Your task to perform on an android device: turn pop-ups on in chrome Image 0: 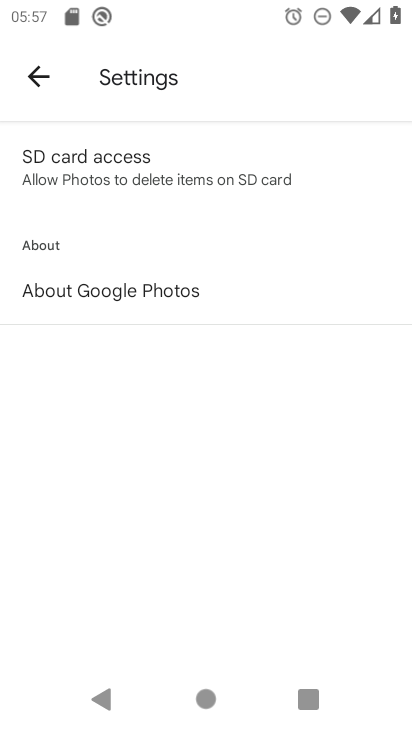
Step 0: press home button
Your task to perform on an android device: turn pop-ups on in chrome Image 1: 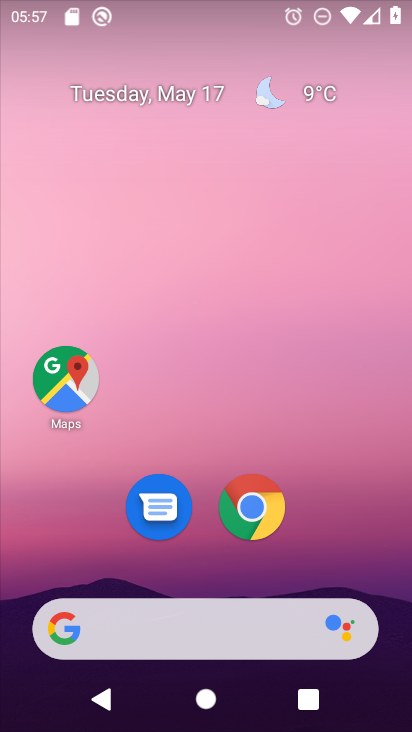
Step 1: drag from (335, 514) to (238, 40)
Your task to perform on an android device: turn pop-ups on in chrome Image 2: 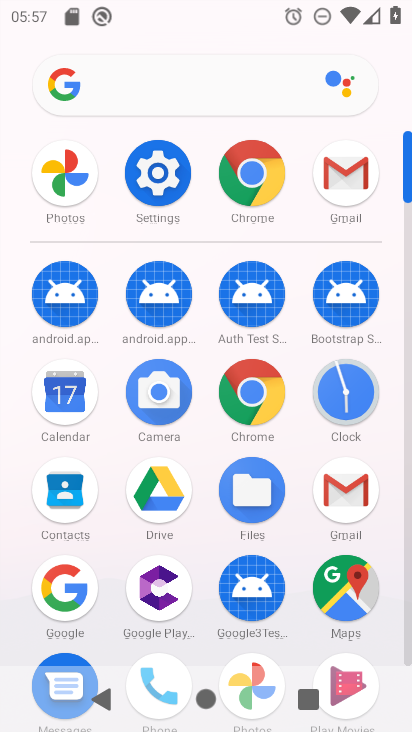
Step 2: click (243, 183)
Your task to perform on an android device: turn pop-ups on in chrome Image 3: 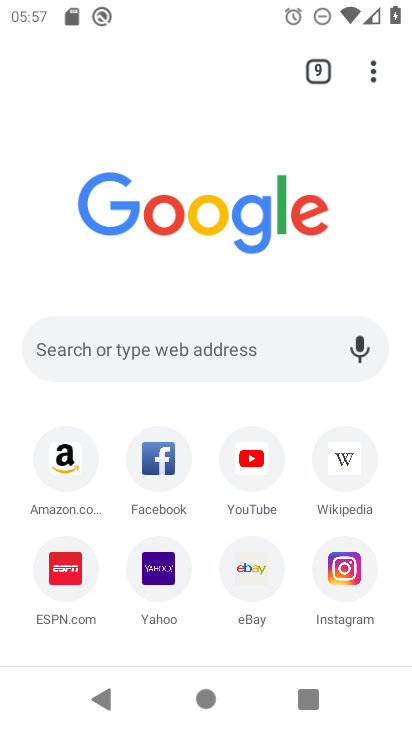
Step 3: click (365, 57)
Your task to perform on an android device: turn pop-ups on in chrome Image 4: 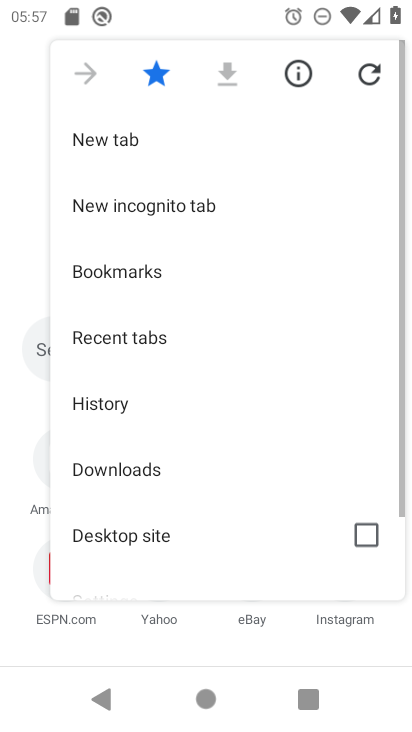
Step 4: drag from (230, 460) to (205, 125)
Your task to perform on an android device: turn pop-ups on in chrome Image 5: 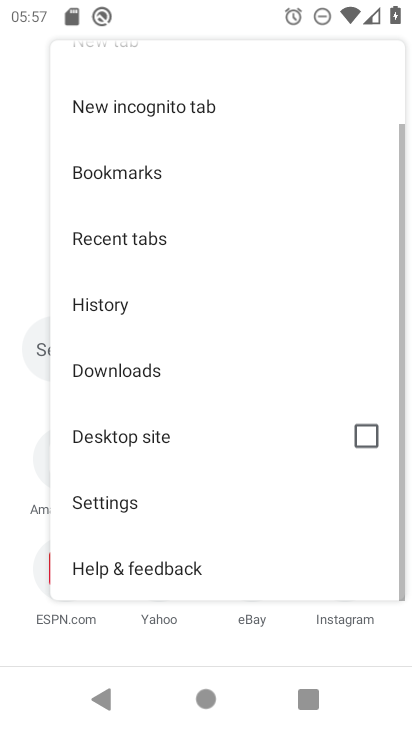
Step 5: click (190, 506)
Your task to perform on an android device: turn pop-ups on in chrome Image 6: 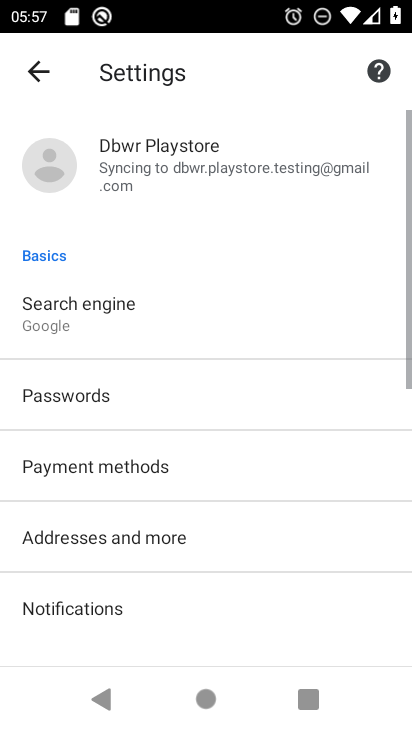
Step 6: drag from (219, 509) to (204, 128)
Your task to perform on an android device: turn pop-ups on in chrome Image 7: 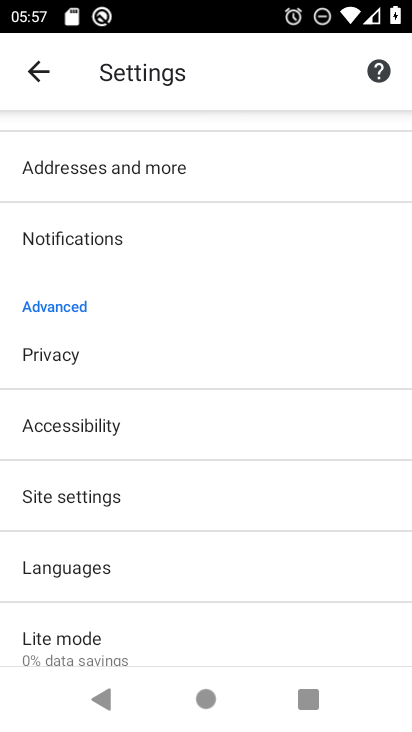
Step 7: click (142, 483)
Your task to perform on an android device: turn pop-ups on in chrome Image 8: 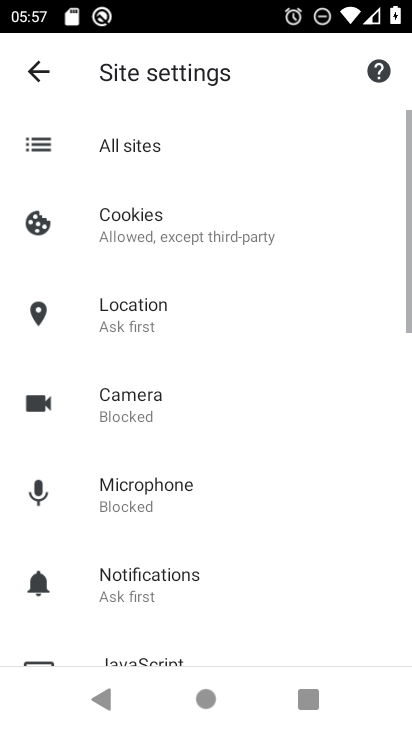
Step 8: drag from (201, 572) to (181, 116)
Your task to perform on an android device: turn pop-ups on in chrome Image 9: 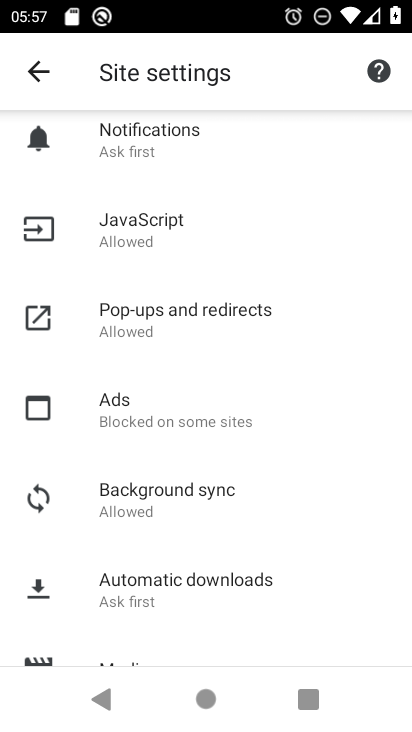
Step 9: click (173, 330)
Your task to perform on an android device: turn pop-ups on in chrome Image 10: 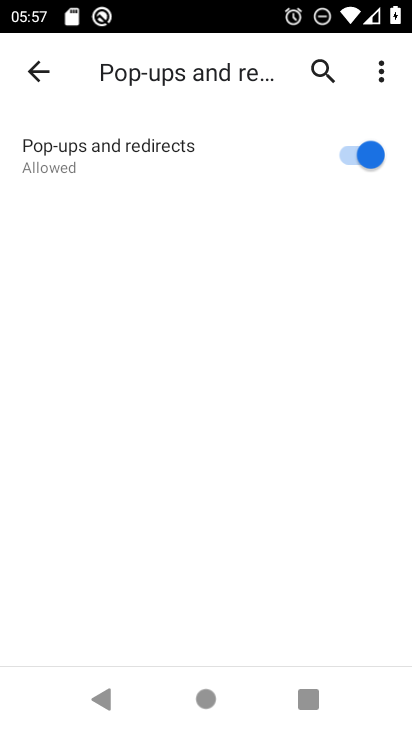
Step 10: task complete